Your task to perform on an android device: Open calendar and show me the first week of next month Image 0: 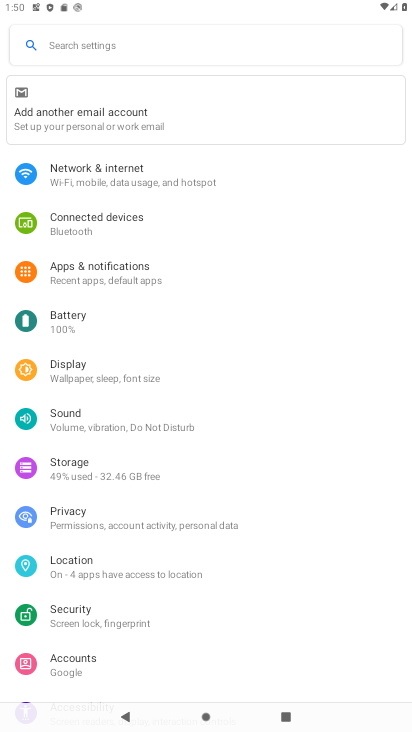
Step 0: drag from (152, 636) to (226, 142)
Your task to perform on an android device: Open calendar and show me the first week of next month Image 1: 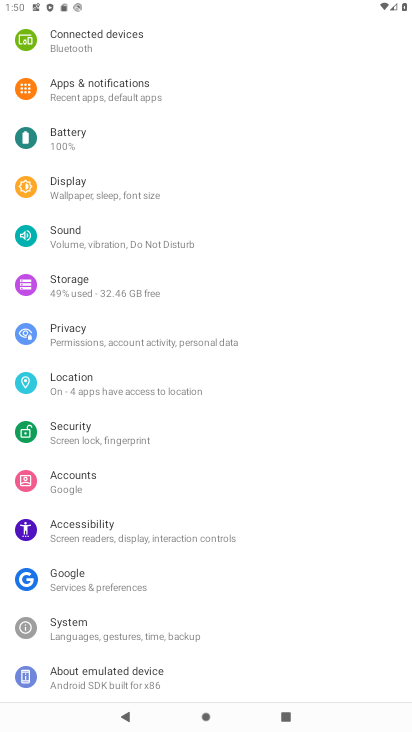
Step 1: press home button
Your task to perform on an android device: Open calendar and show me the first week of next month Image 2: 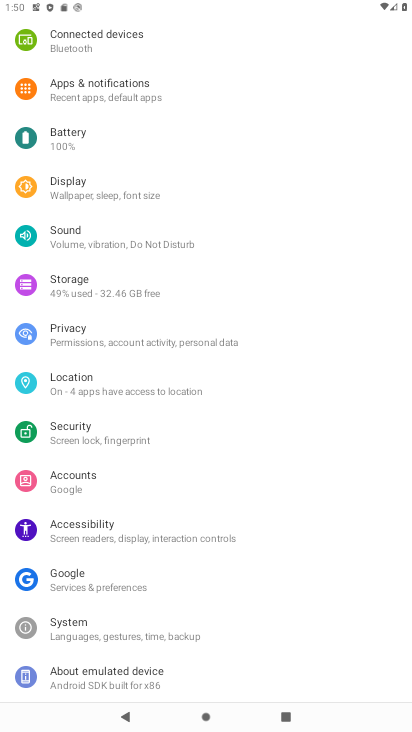
Step 2: drag from (198, 396) to (266, 67)
Your task to perform on an android device: Open calendar and show me the first week of next month Image 3: 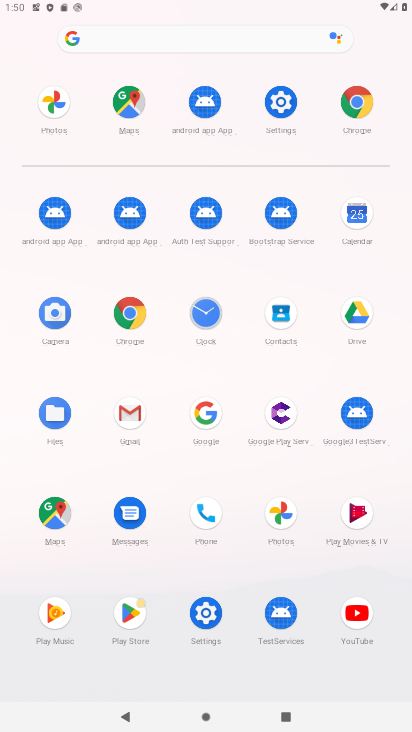
Step 3: click (363, 205)
Your task to perform on an android device: Open calendar and show me the first week of next month Image 4: 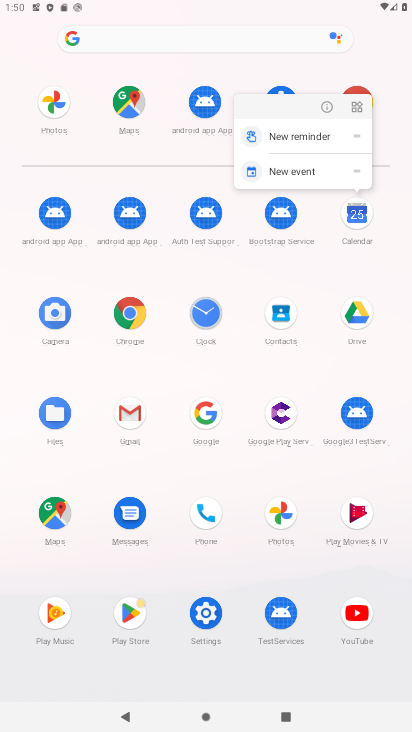
Step 4: click (328, 110)
Your task to perform on an android device: Open calendar and show me the first week of next month Image 5: 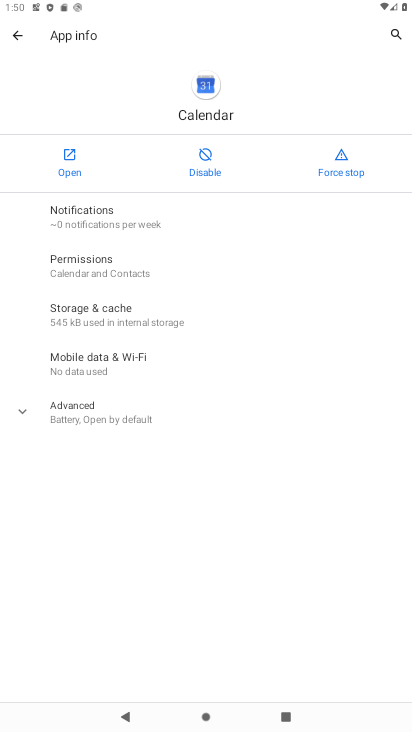
Step 5: click (64, 172)
Your task to perform on an android device: Open calendar and show me the first week of next month Image 6: 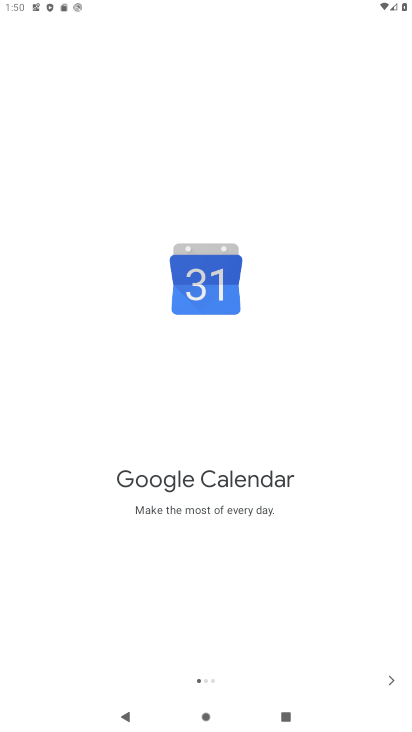
Step 6: drag from (190, 653) to (225, 212)
Your task to perform on an android device: Open calendar and show me the first week of next month Image 7: 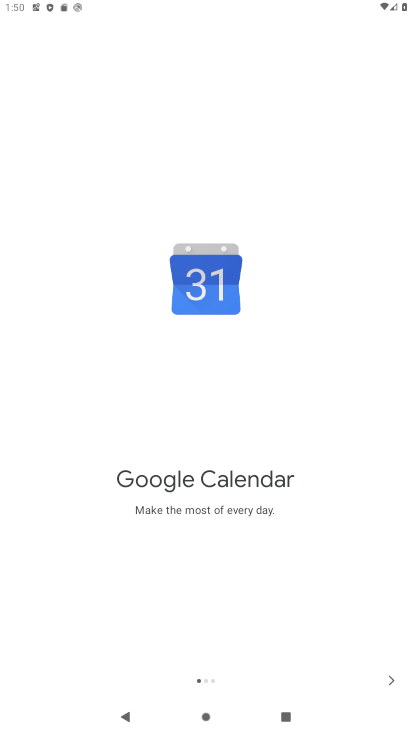
Step 7: click (398, 683)
Your task to perform on an android device: Open calendar and show me the first week of next month Image 8: 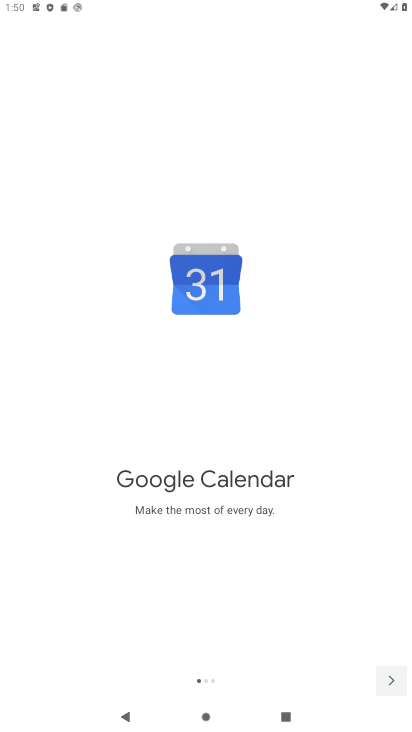
Step 8: click (389, 680)
Your task to perform on an android device: Open calendar and show me the first week of next month Image 9: 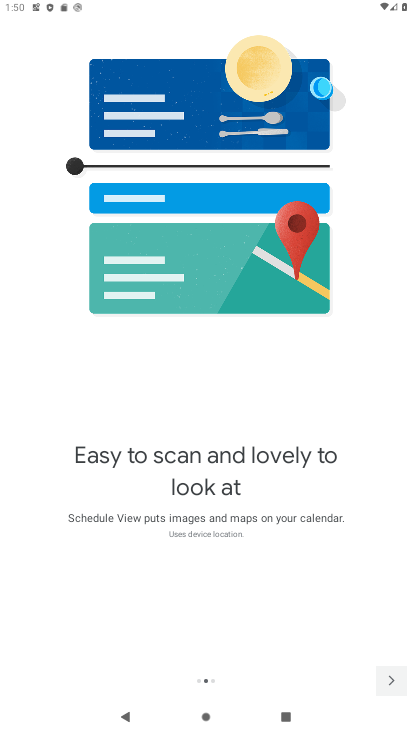
Step 9: click (389, 680)
Your task to perform on an android device: Open calendar and show me the first week of next month Image 10: 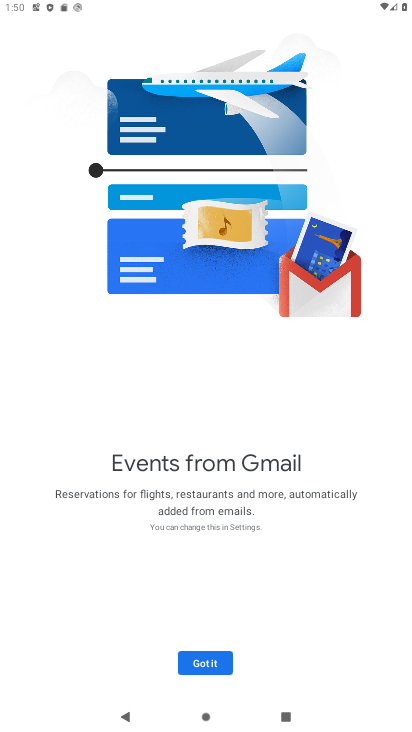
Step 10: click (232, 667)
Your task to perform on an android device: Open calendar and show me the first week of next month Image 11: 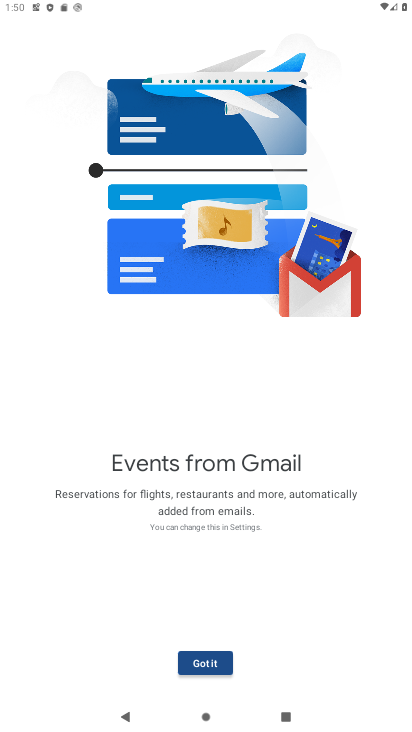
Step 11: click (220, 669)
Your task to perform on an android device: Open calendar and show me the first week of next month Image 12: 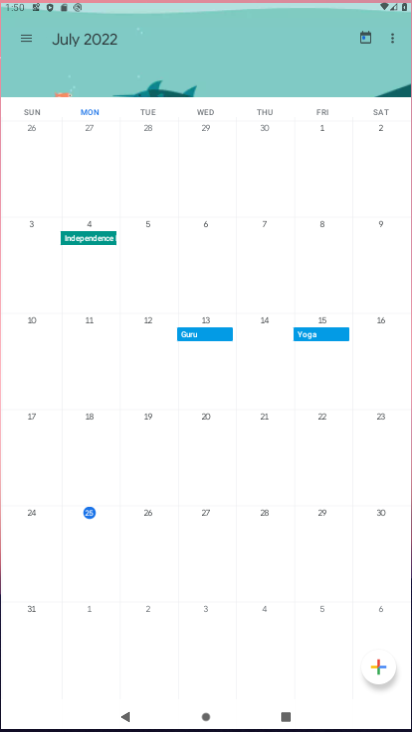
Step 12: drag from (254, 506) to (324, 27)
Your task to perform on an android device: Open calendar and show me the first week of next month Image 13: 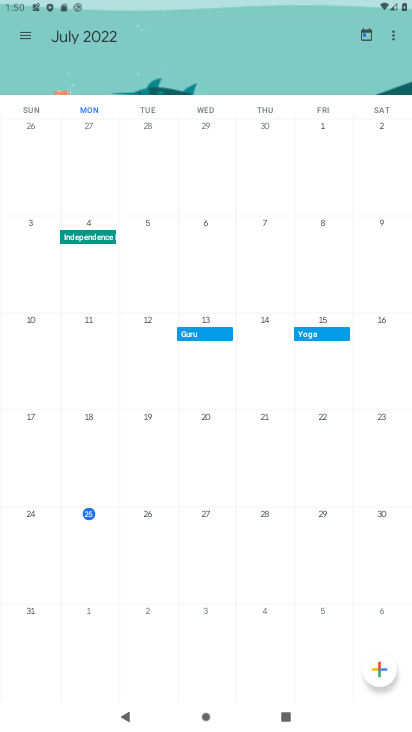
Step 13: drag from (195, 544) to (289, 233)
Your task to perform on an android device: Open calendar and show me the first week of next month Image 14: 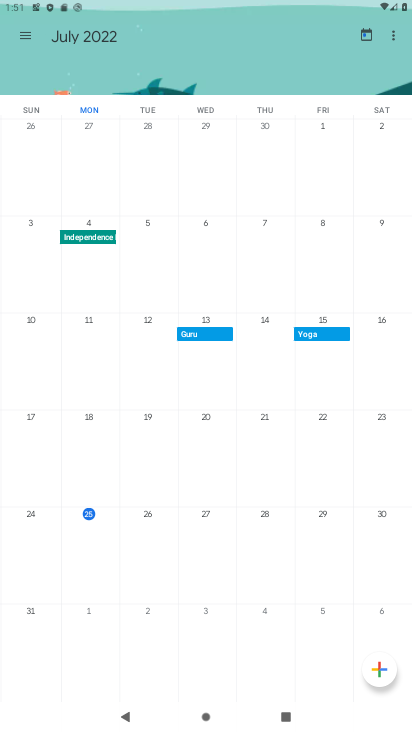
Step 14: click (366, 29)
Your task to perform on an android device: Open calendar and show me the first week of next month Image 15: 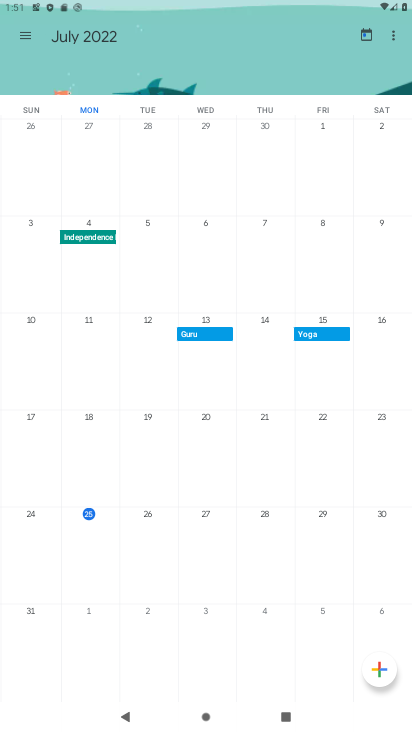
Step 15: drag from (357, 366) to (296, 354)
Your task to perform on an android device: Open calendar and show me the first week of next month Image 16: 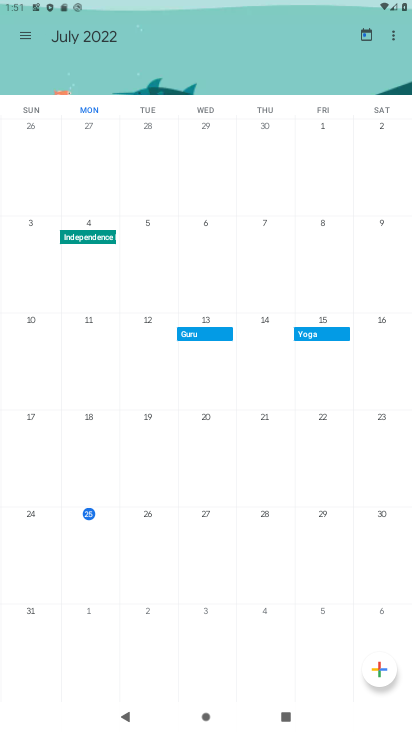
Step 16: drag from (332, 346) to (0, 287)
Your task to perform on an android device: Open calendar and show me the first week of next month Image 17: 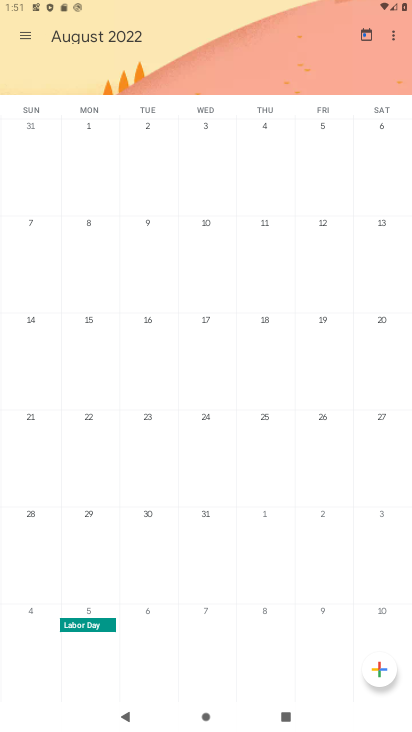
Step 17: click (263, 128)
Your task to perform on an android device: Open calendar and show me the first week of next month Image 18: 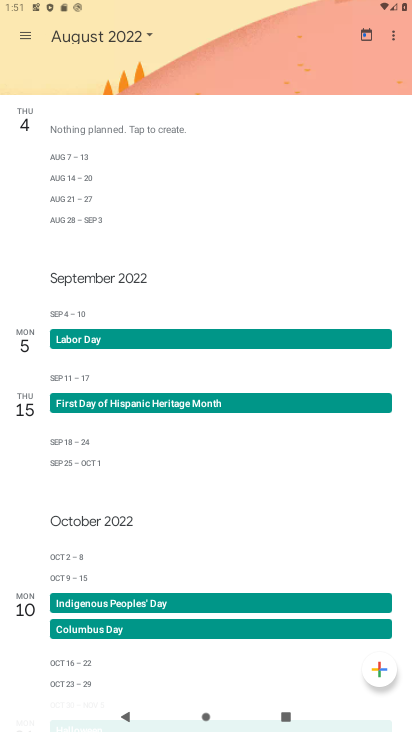
Step 18: task complete